Your task to perform on an android device: manage bookmarks in the chrome app Image 0: 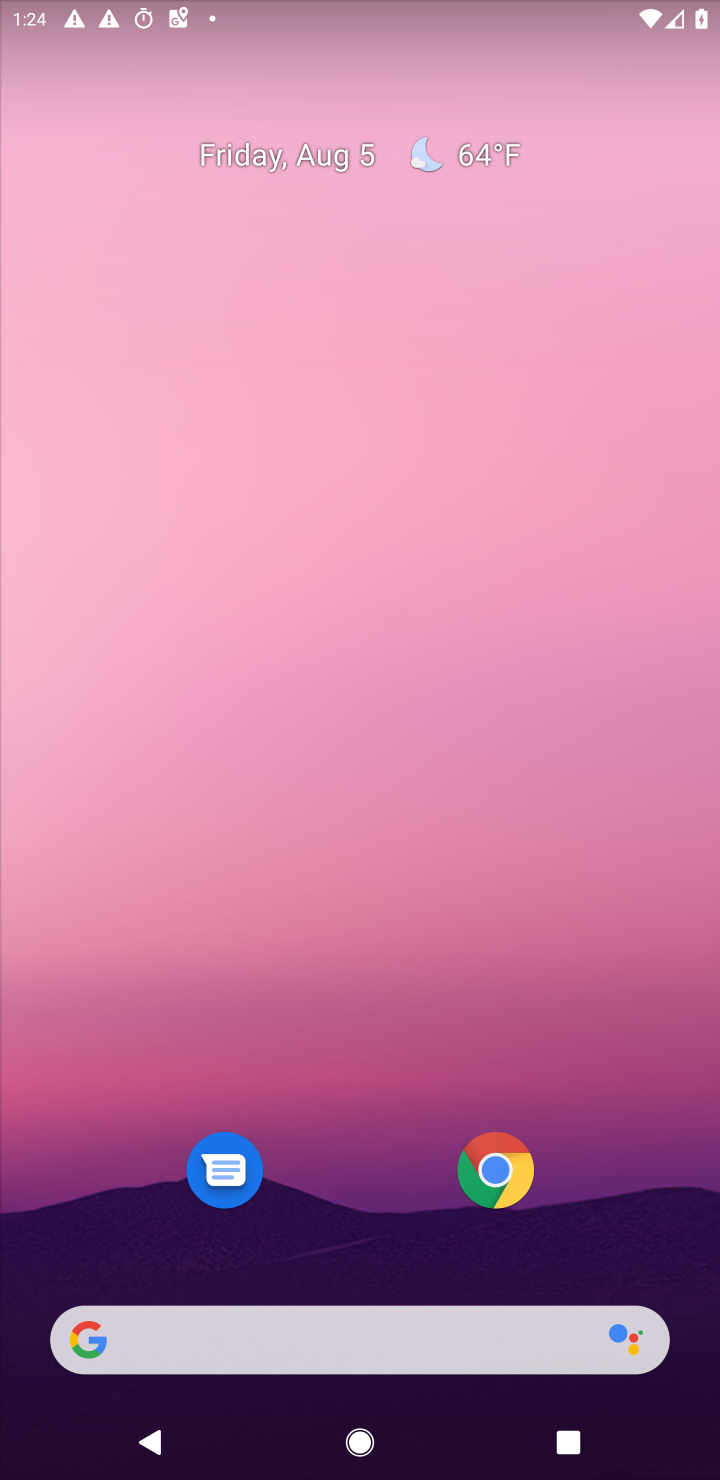
Step 0: drag from (393, 1243) to (457, 44)
Your task to perform on an android device: manage bookmarks in the chrome app Image 1: 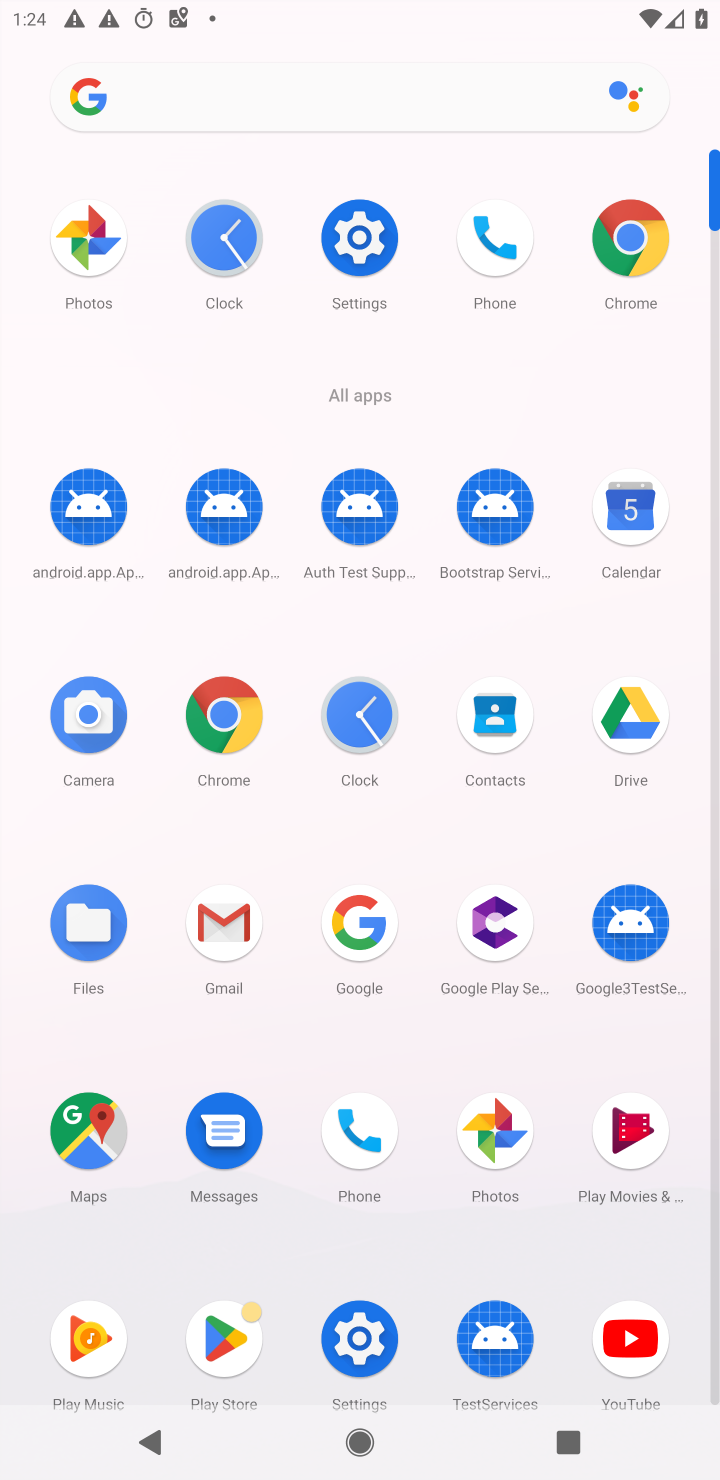
Step 1: click (242, 725)
Your task to perform on an android device: manage bookmarks in the chrome app Image 2: 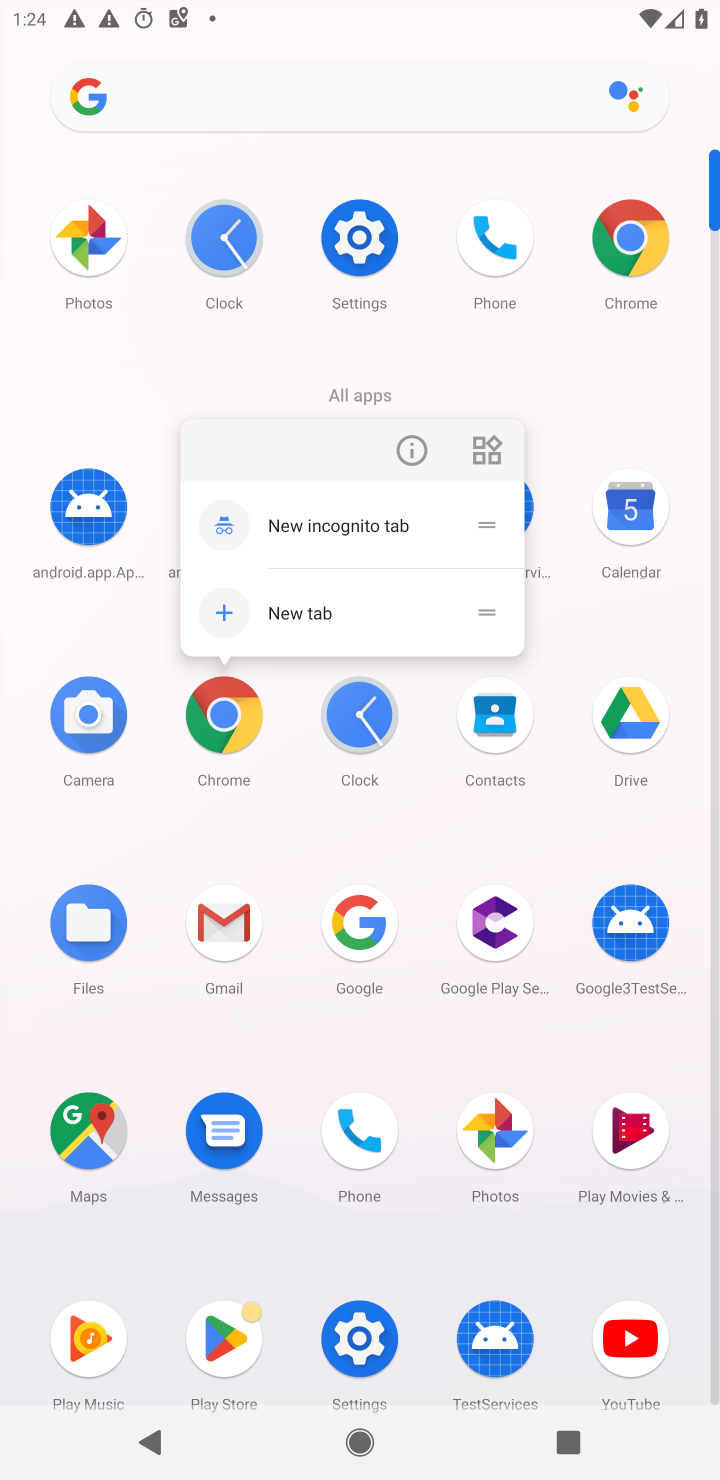
Step 2: click (215, 737)
Your task to perform on an android device: manage bookmarks in the chrome app Image 3: 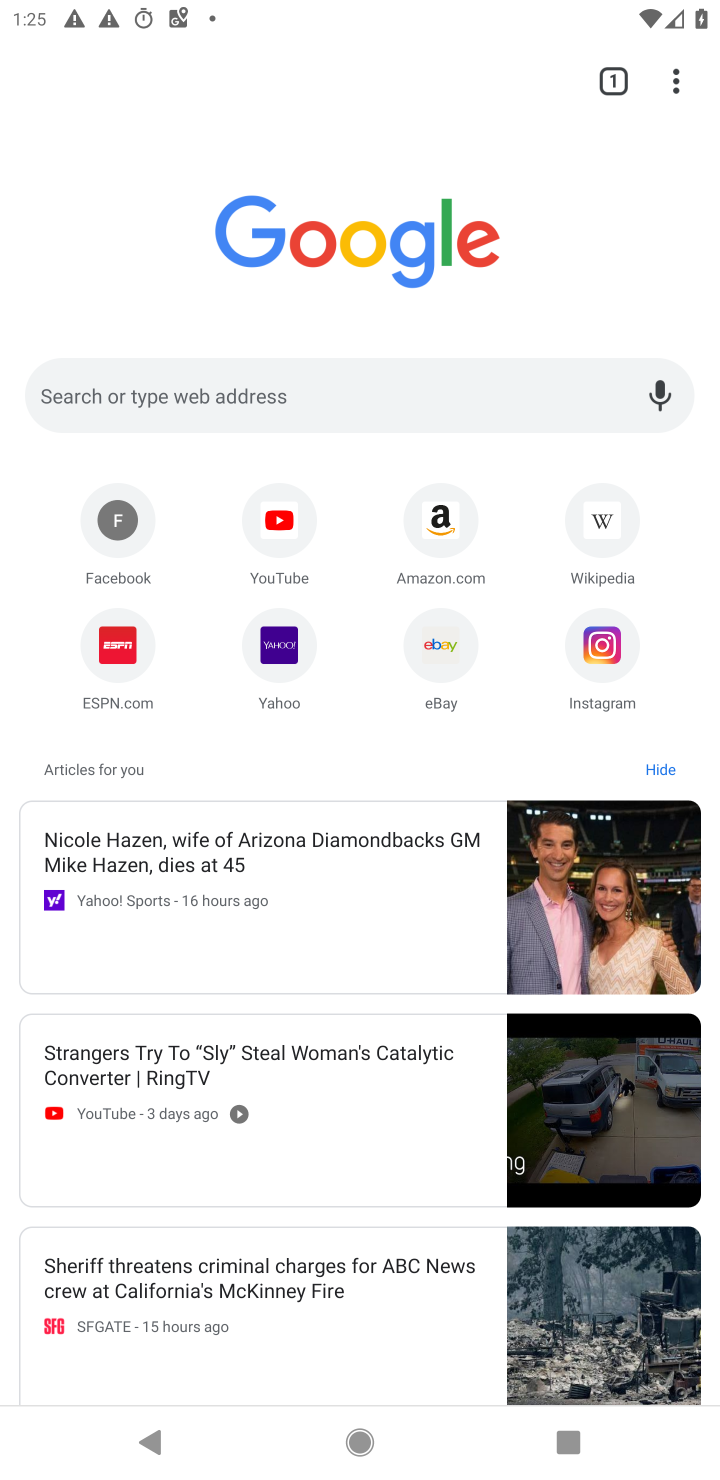
Step 3: click (670, 87)
Your task to perform on an android device: manage bookmarks in the chrome app Image 4: 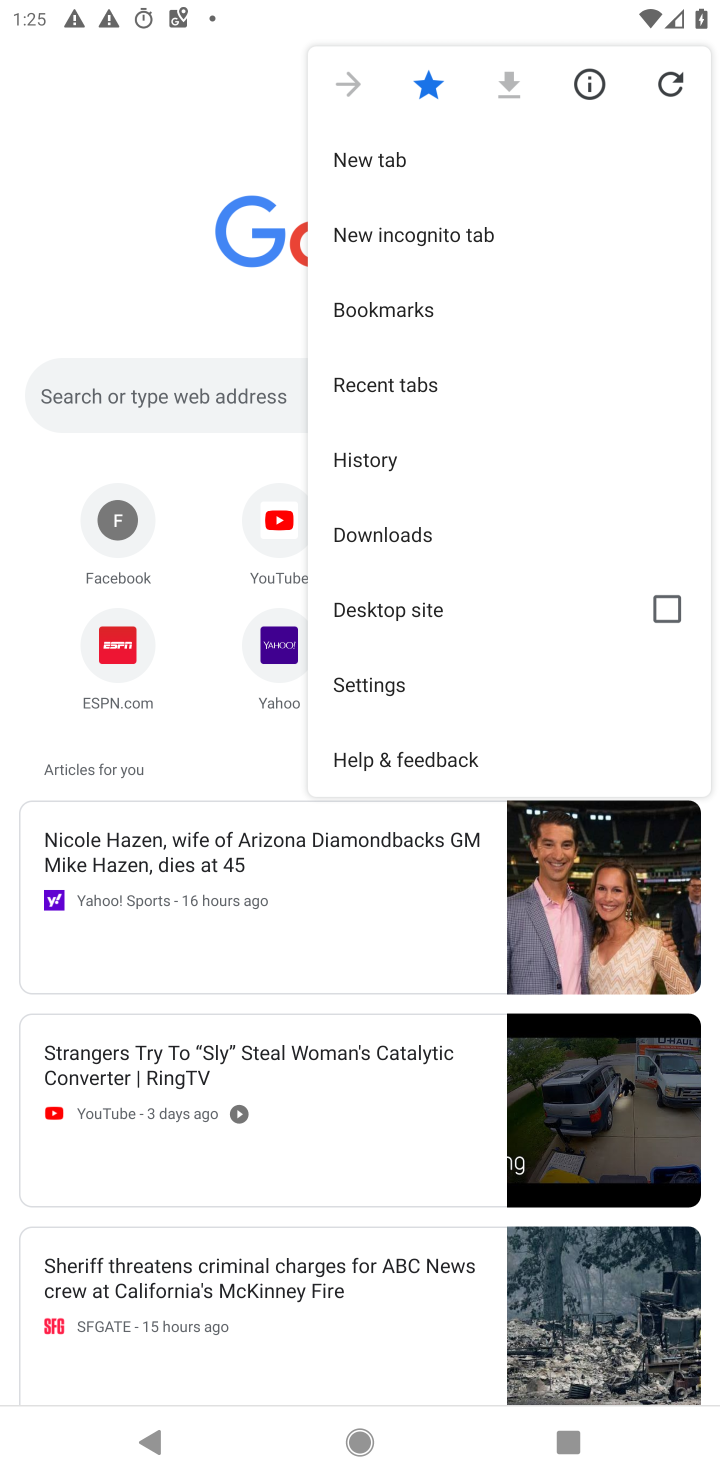
Step 4: click (391, 317)
Your task to perform on an android device: manage bookmarks in the chrome app Image 5: 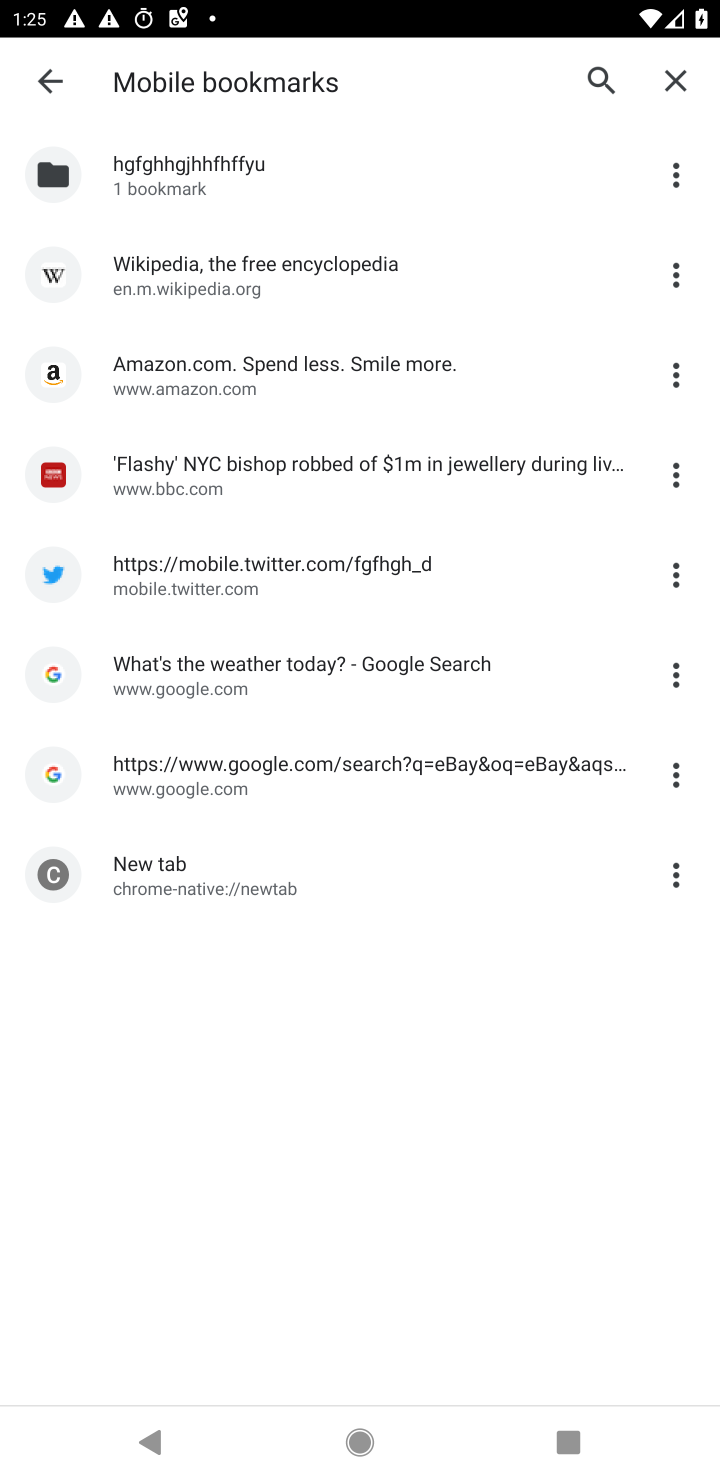
Step 5: click (666, 277)
Your task to perform on an android device: manage bookmarks in the chrome app Image 6: 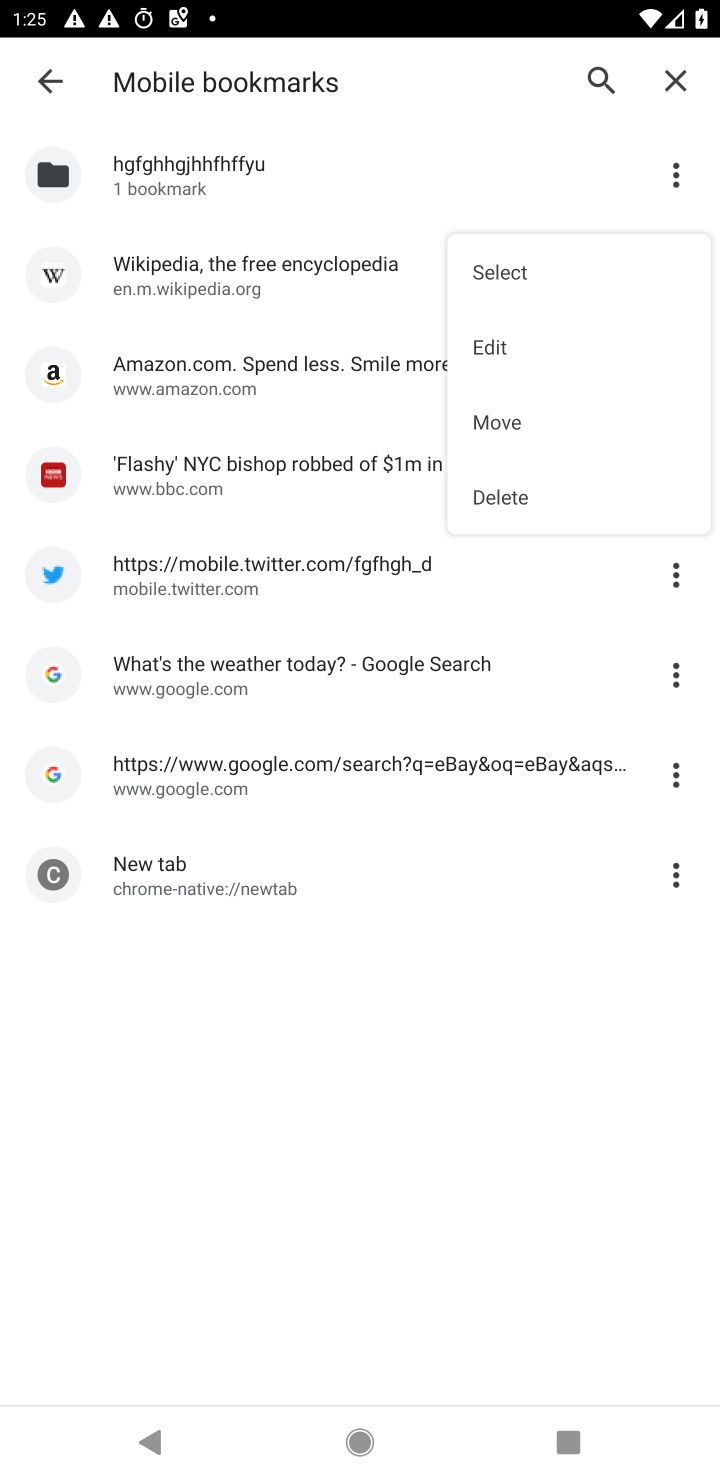
Step 6: click (510, 504)
Your task to perform on an android device: manage bookmarks in the chrome app Image 7: 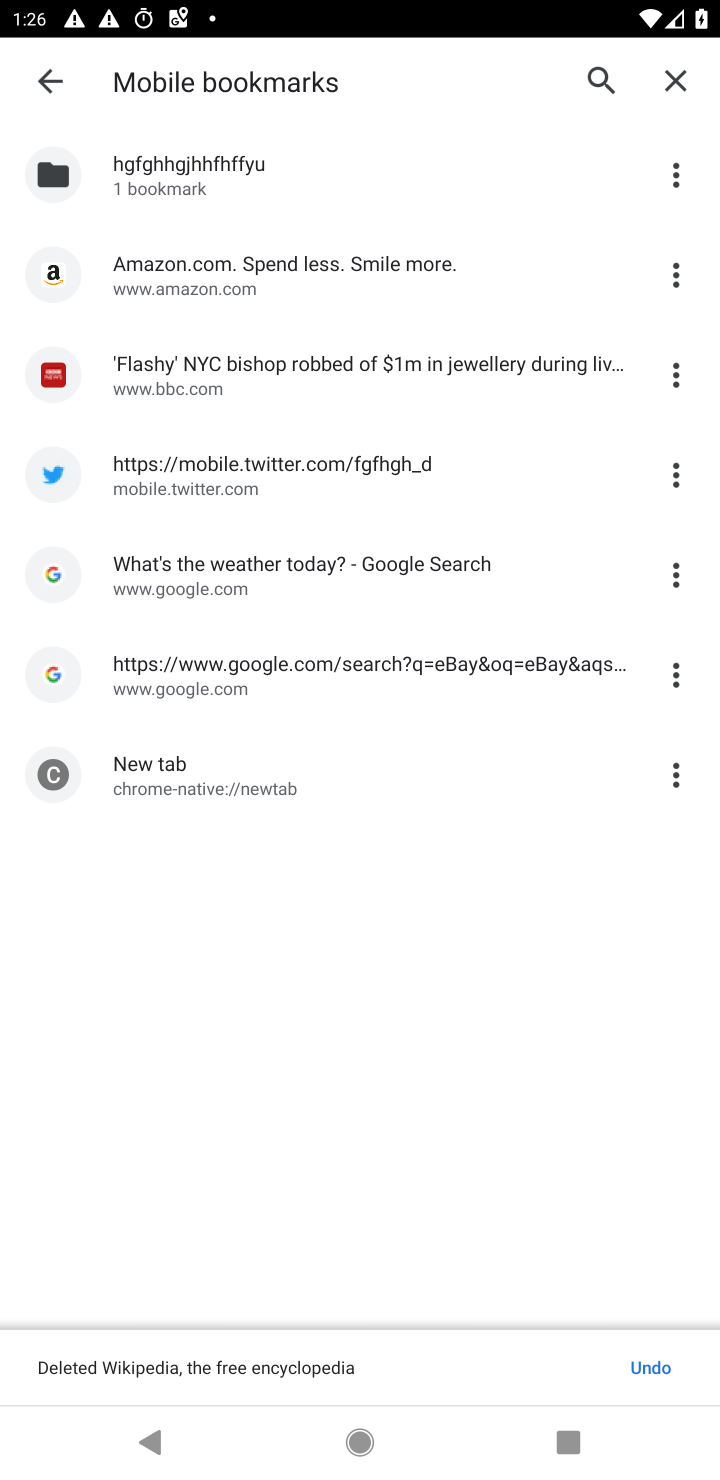
Step 7: task complete